Your task to perform on an android device: Turn off the flashlight Image 0: 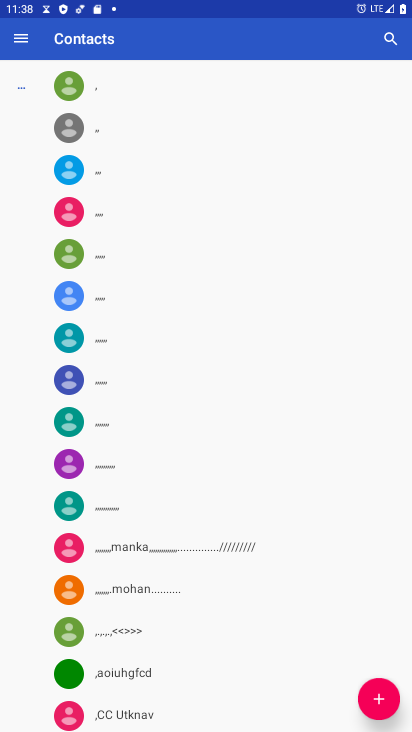
Step 0: press back button
Your task to perform on an android device: Turn off the flashlight Image 1: 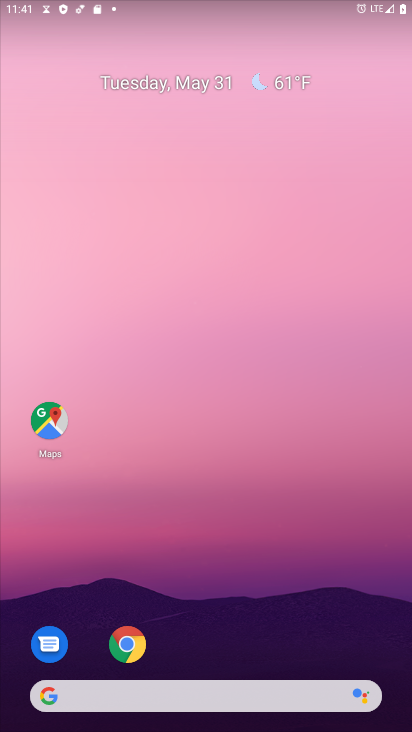
Step 1: drag from (176, 578) to (235, 132)
Your task to perform on an android device: Turn off the flashlight Image 2: 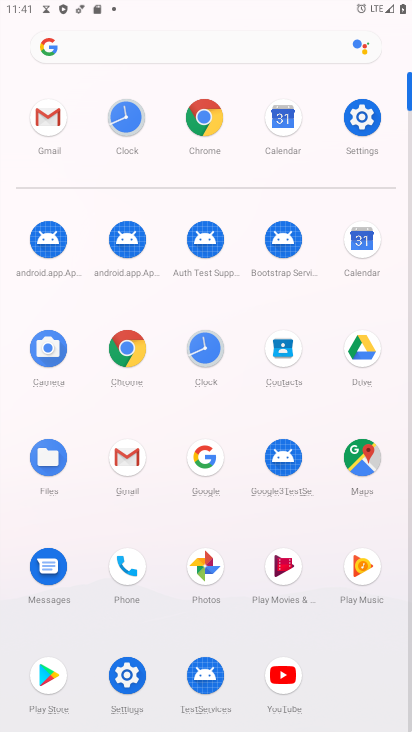
Step 2: click (359, 118)
Your task to perform on an android device: Turn off the flashlight Image 3: 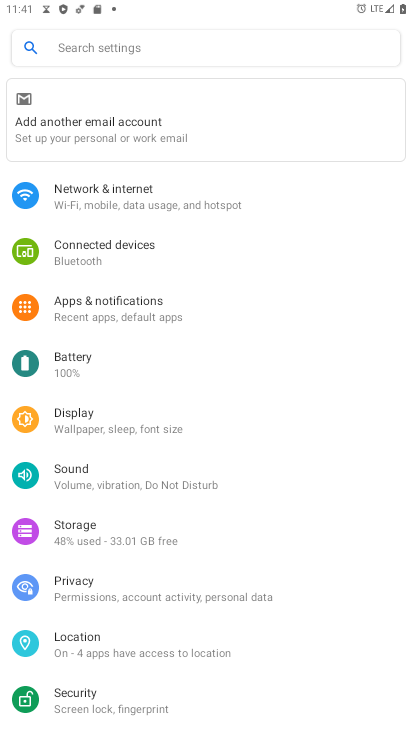
Step 3: click (141, 48)
Your task to perform on an android device: Turn off the flashlight Image 4: 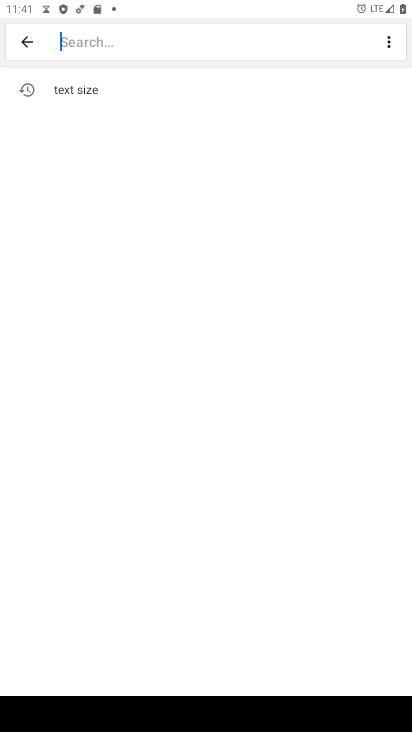
Step 4: type "flash"
Your task to perform on an android device: Turn off the flashlight Image 5: 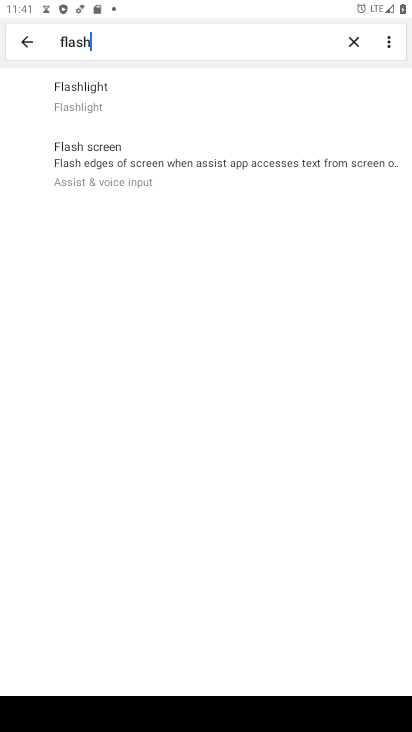
Step 5: click (116, 90)
Your task to perform on an android device: Turn off the flashlight Image 6: 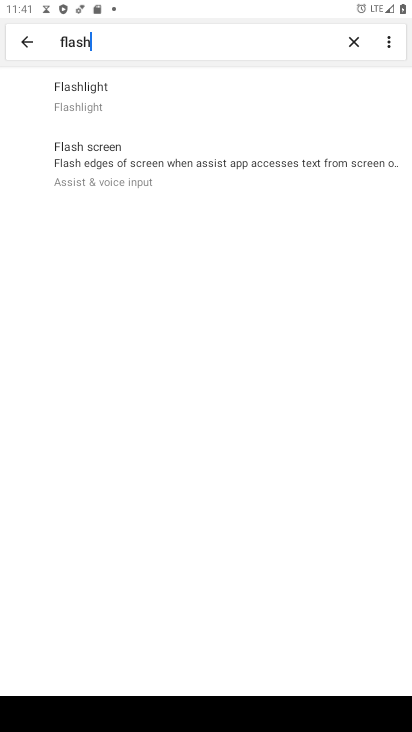
Step 6: task complete